Your task to perform on an android device: Go to Maps Image 0: 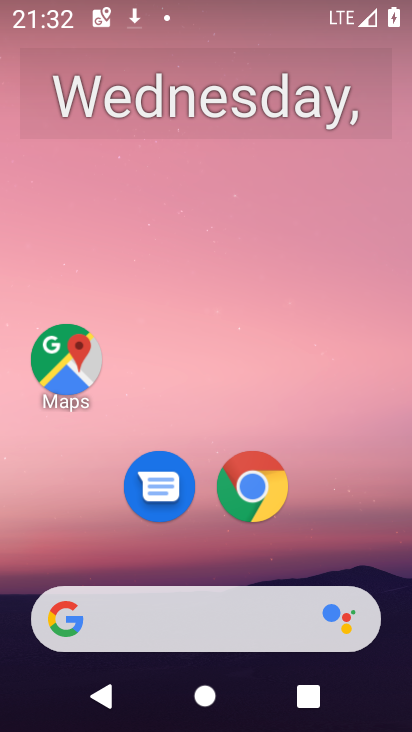
Step 0: click (52, 368)
Your task to perform on an android device: Go to Maps Image 1: 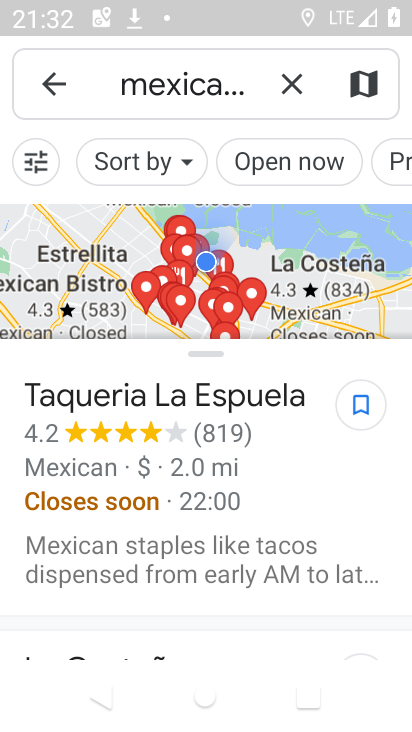
Step 1: task complete